Your task to perform on an android device: toggle translation in the chrome app Image 0: 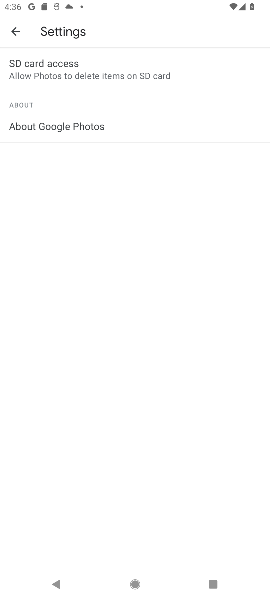
Step 0: click (13, 29)
Your task to perform on an android device: toggle translation in the chrome app Image 1: 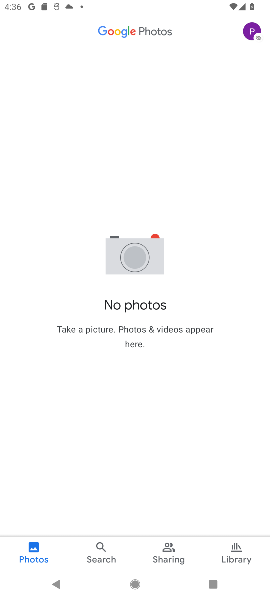
Step 1: press back button
Your task to perform on an android device: toggle translation in the chrome app Image 2: 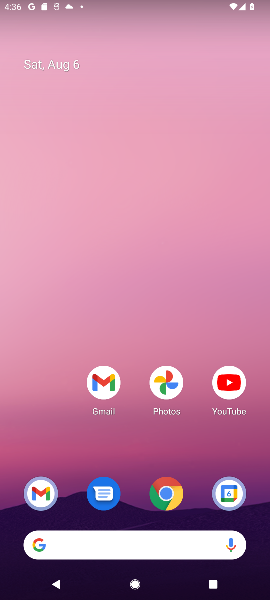
Step 2: drag from (173, 547) to (176, 92)
Your task to perform on an android device: toggle translation in the chrome app Image 3: 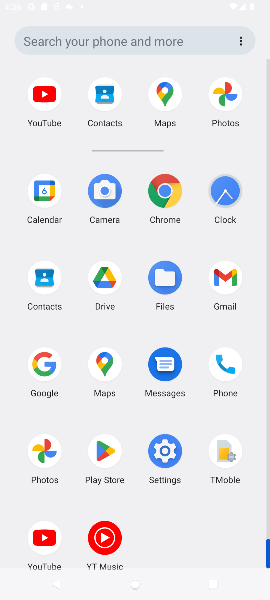
Step 3: drag from (178, 427) to (158, 200)
Your task to perform on an android device: toggle translation in the chrome app Image 4: 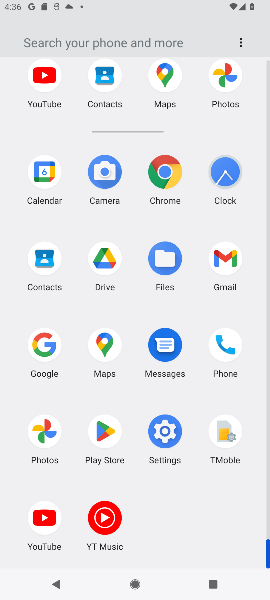
Step 4: click (156, 179)
Your task to perform on an android device: toggle translation in the chrome app Image 5: 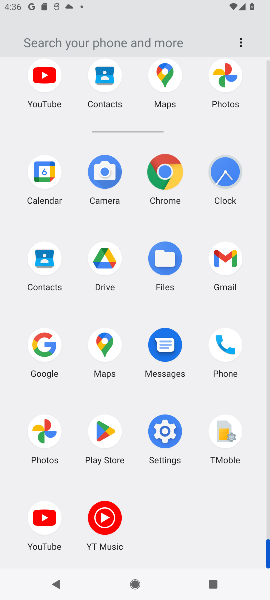
Step 5: click (156, 179)
Your task to perform on an android device: toggle translation in the chrome app Image 6: 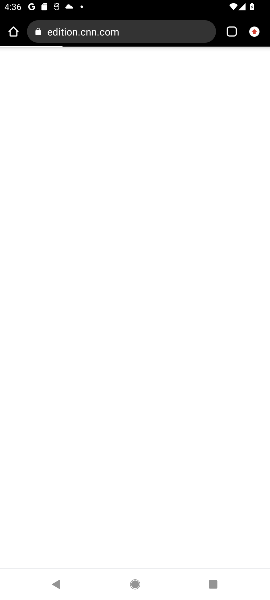
Step 6: drag from (256, 30) to (162, 385)
Your task to perform on an android device: toggle translation in the chrome app Image 7: 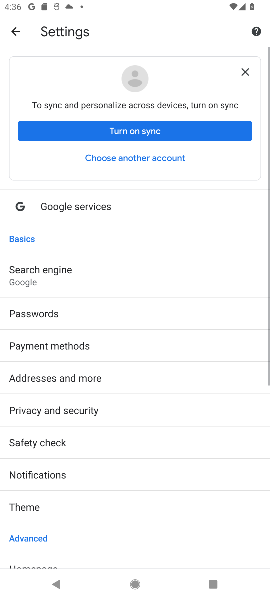
Step 7: drag from (70, 480) to (94, 215)
Your task to perform on an android device: toggle translation in the chrome app Image 8: 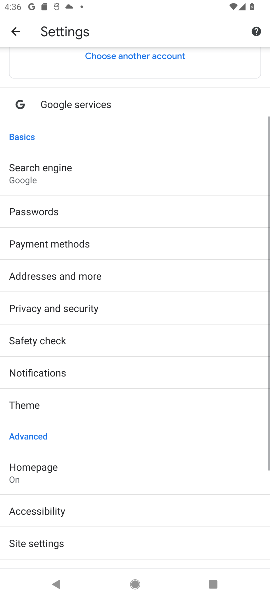
Step 8: drag from (106, 377) to (125, 182)
Your task to perform on an android device: toggle translation in the chrome app Image 9: 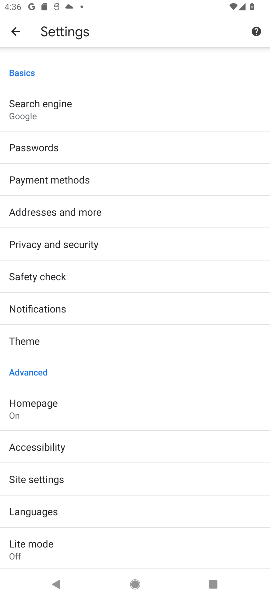
Step 9: click (42, 509)
Your task to perform on an android device: toggle translation in the chrome app Image 10: 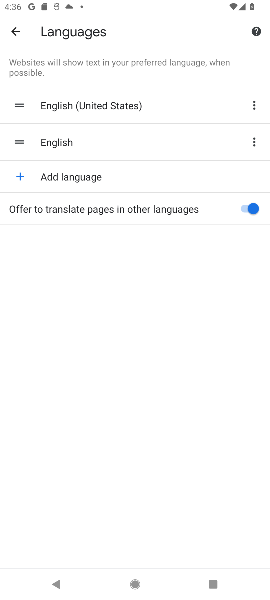
Step 10: click (248, 206)
Your task to perform on an android device: toggle translation in the chrome app Image 11: 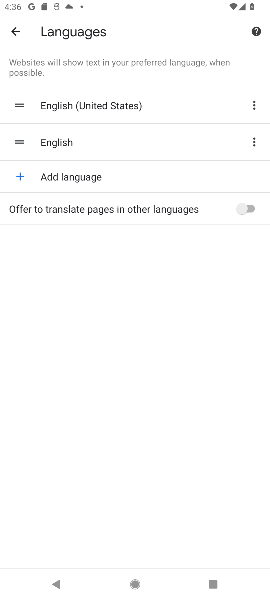
Step 11: task complete